Your task to perform on an android device: change text size in settings app Image 0: 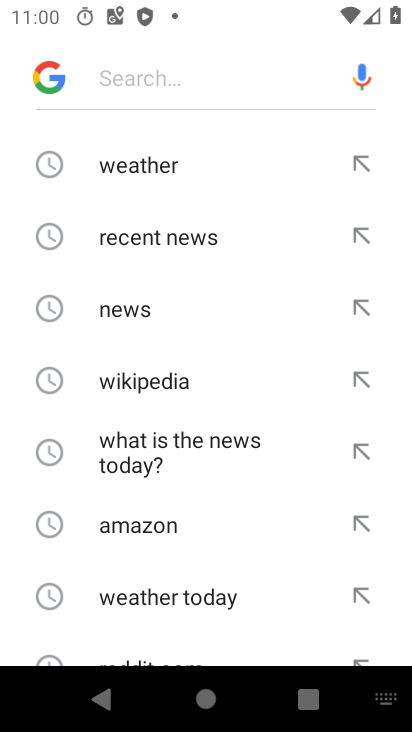
Step 0: press home button
Your task to perform on an android device: change text size in settings app Image 1: 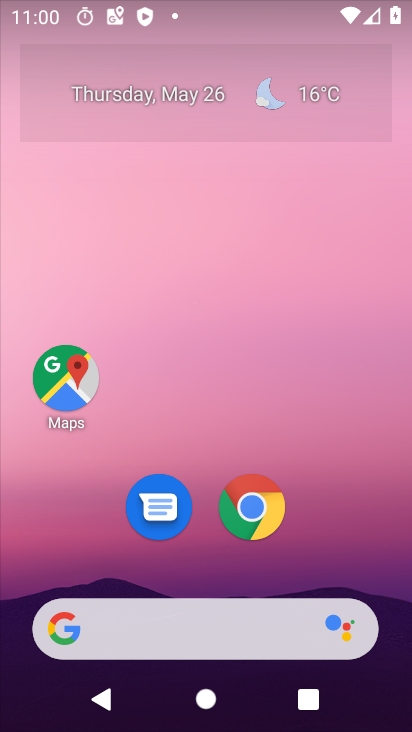
Step 1: drag from (144, 538) to (132, 279)
Your task to perform on an android device: change text size in settings app Image 2: 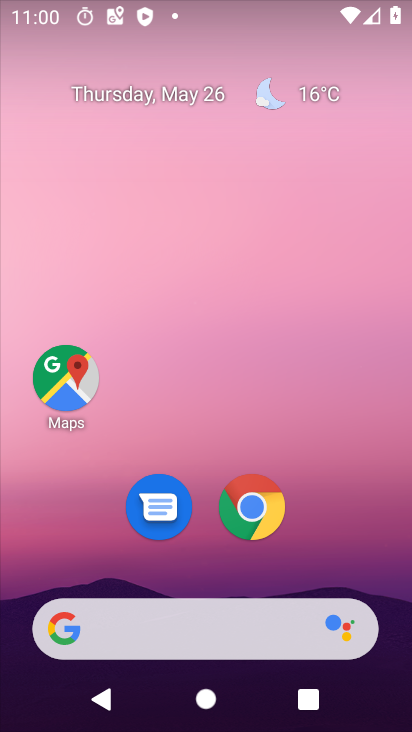
Step 2: drag from (177, 595) to (172, 197)
Your task to perform on an android device: change text size in settings app Image 3: 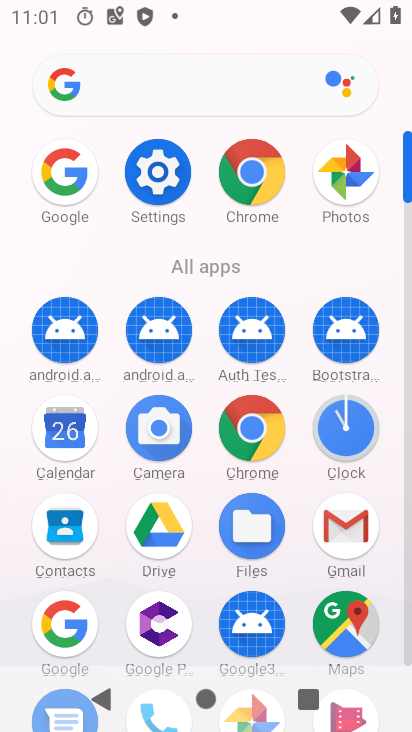
Step 3: click (165, 147)
Your task to perform on an android device: change text size in settings app Image 4: 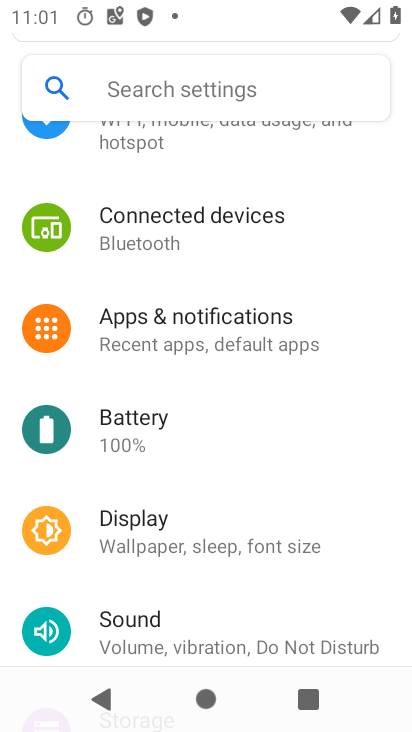
Step 4: drag from (165, 636) to (165, 272)
Your task to perform on an android device: change text size in settings app Image 5: 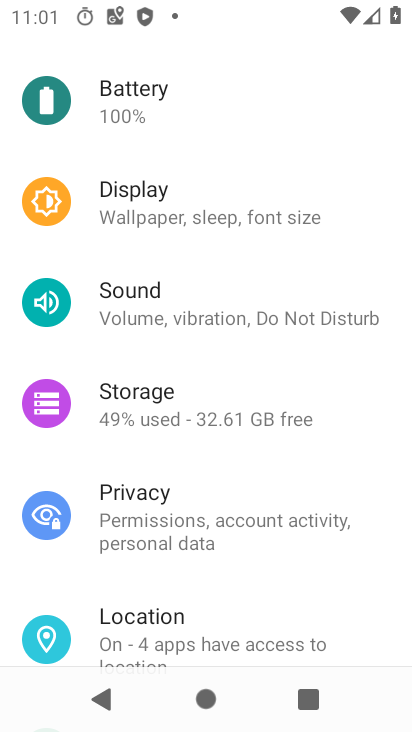
Step 5: drag from (149, 636) to (149, 319)
Your task to perform on an android device: change text size in settings app Image 6: 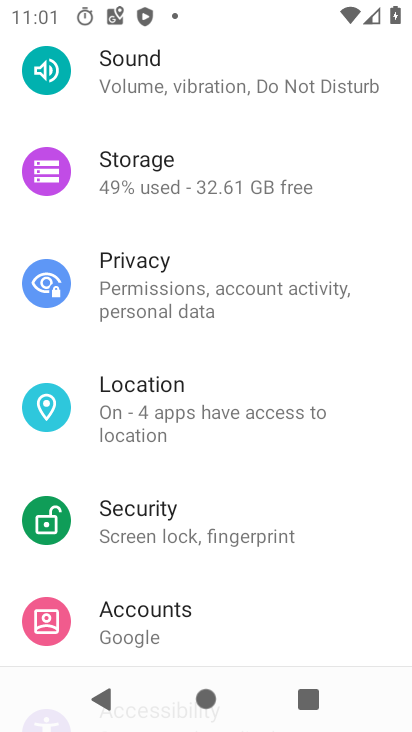
Step 6: drag from (186, 624) to (186, 287)
Your task to perform on an android device: change text size in settings app Image 7: 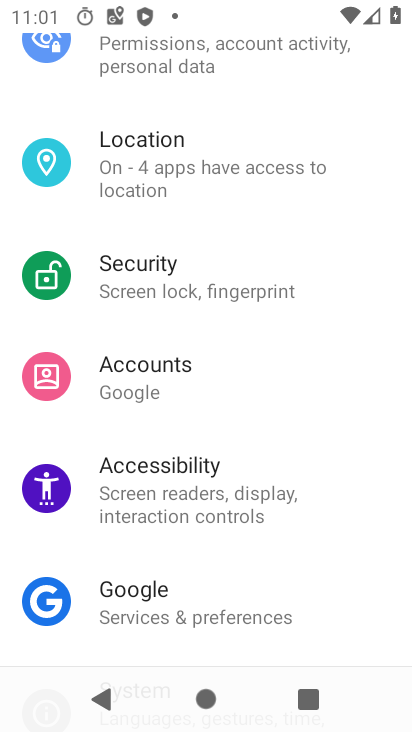
Step 7: click (119, 508)
Your task to perform on an android device: change text size in settings app Image 8: 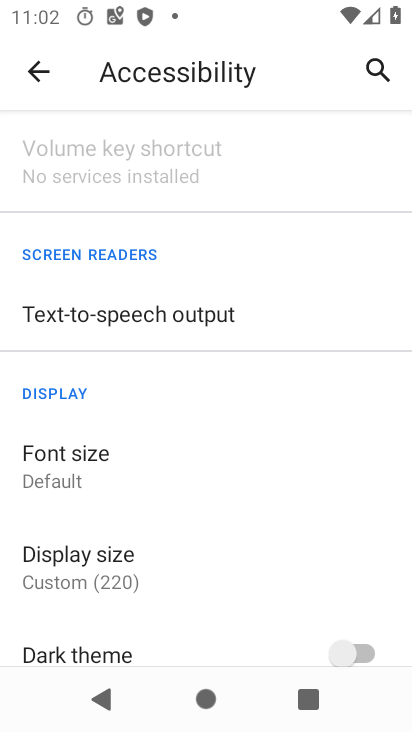
Step 8: click (93, 459)
Your task to perform on an android device: change text size in settings app Image 9: 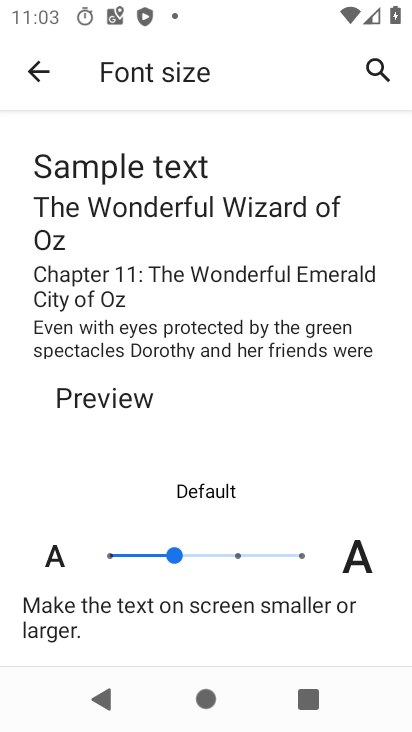
Step 9: click (210, 545)
Your task to perform on an android device: change text size in settings app Image 10: 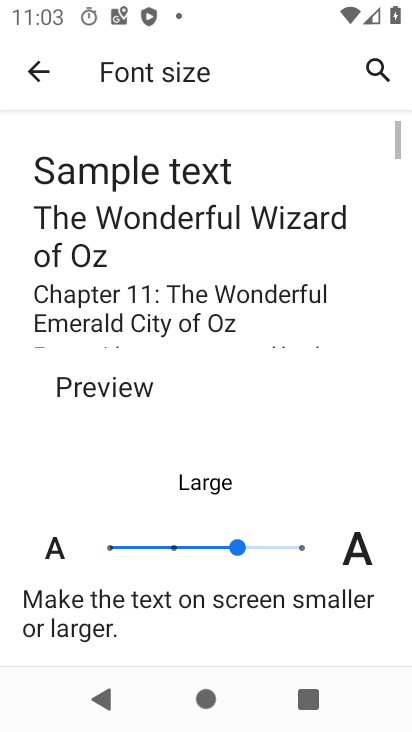
Step 10: task complete